Your task to perform on an android device: Show the shopping cart on target.com. Image 0: 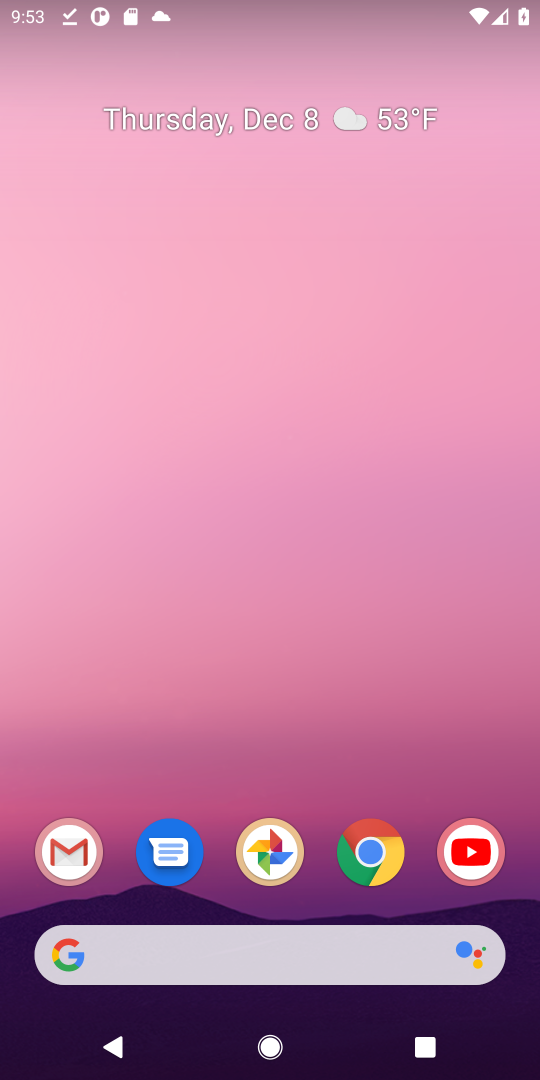
Step 0: click (165, 944)
Your task to perform on an android device: Show the shopping cart on target.com. Image 1: 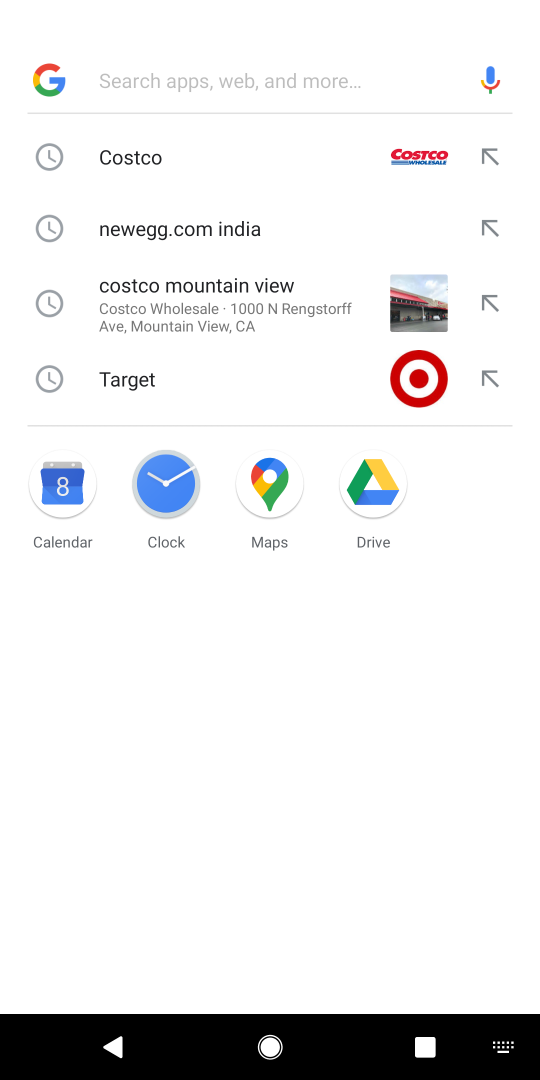
Step 1: type "target"
Your task to perform on an android device: Show the shopping cart on target.com. Image 2: 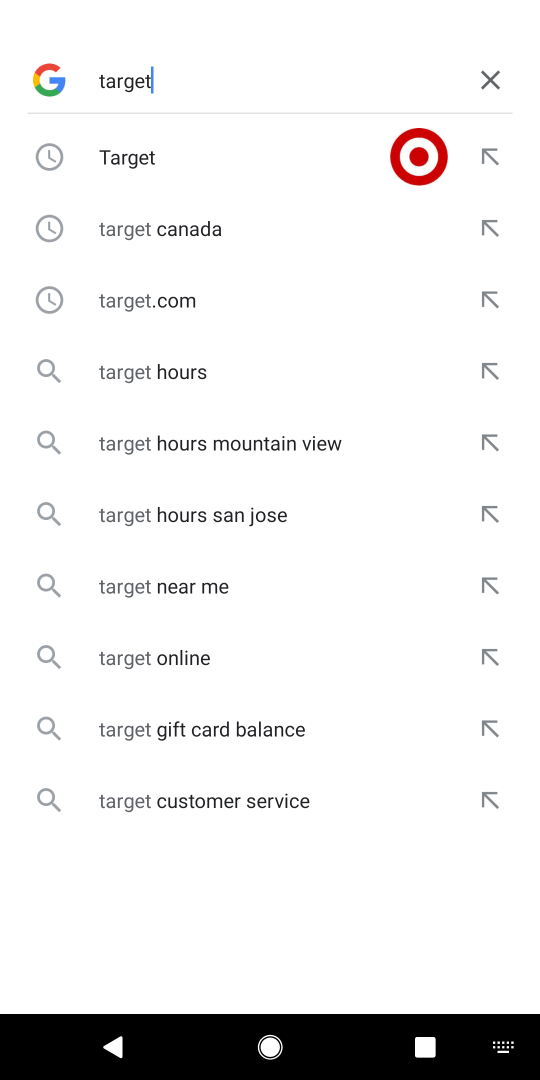
Step 2: click (162, 166)
Your task to perform on an android device: Show the shopping cart on target.com. Image 3: 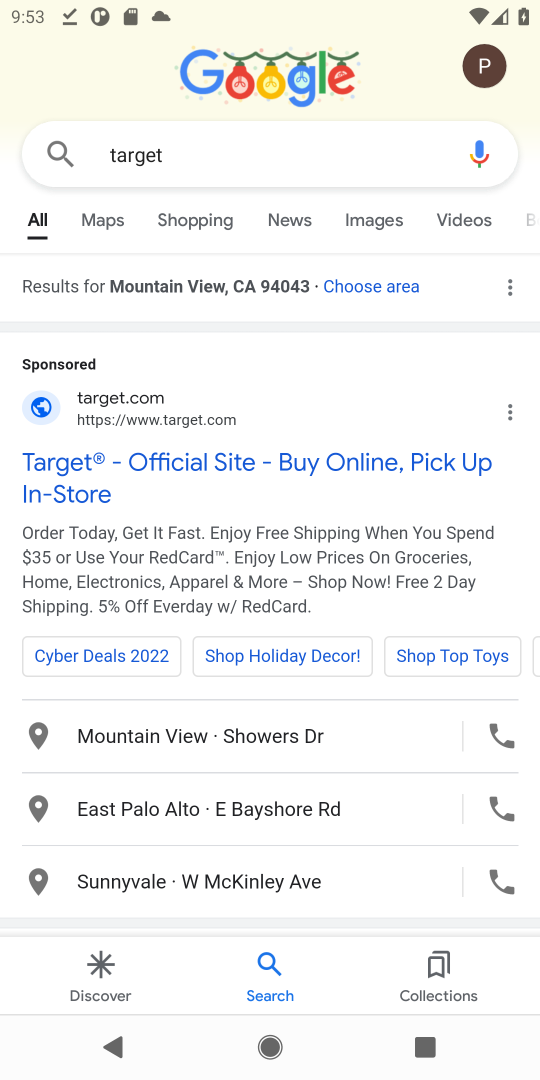
Step 3: click (122, 484)
Your task to perform on an android device: Show the shopping cart on target.com. Image 4: 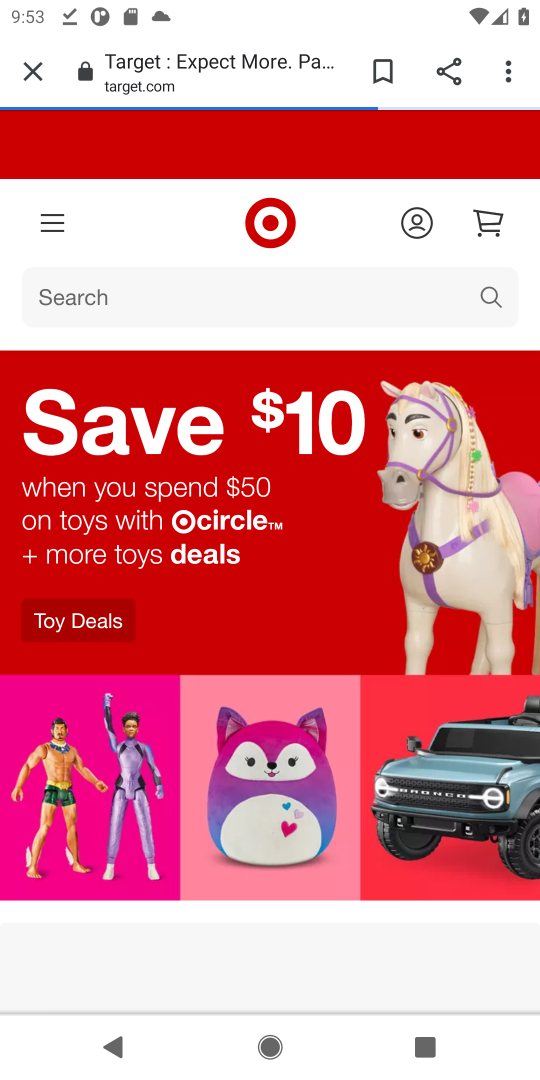
Step 4: click (137, 311)
Your task to perform on an android device: Show the shopping cart on target.com. Image 5: 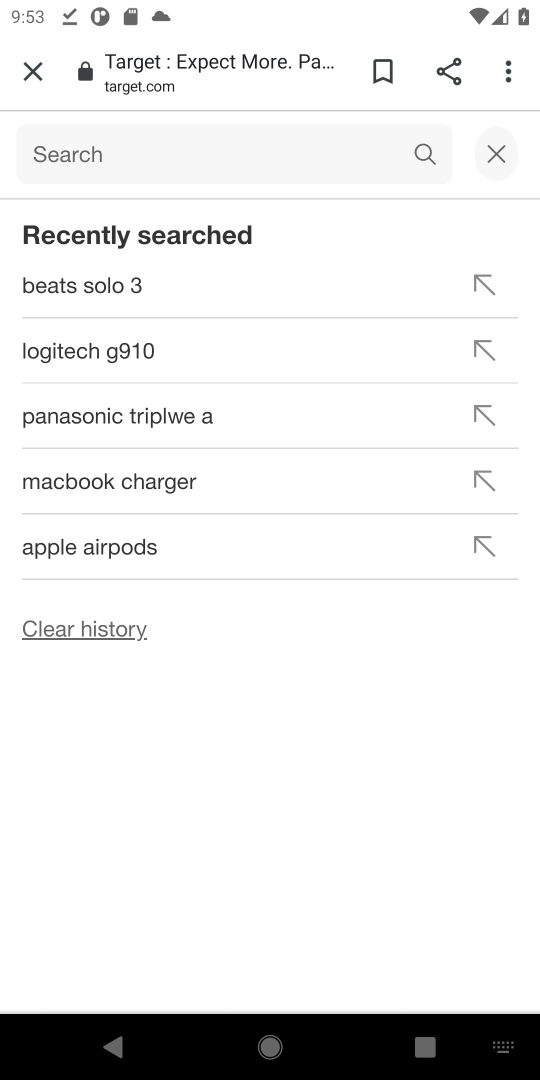
Step 5: type "target"
Your task to perform on an android device: Show the shopping cart on target.com. Image 6: 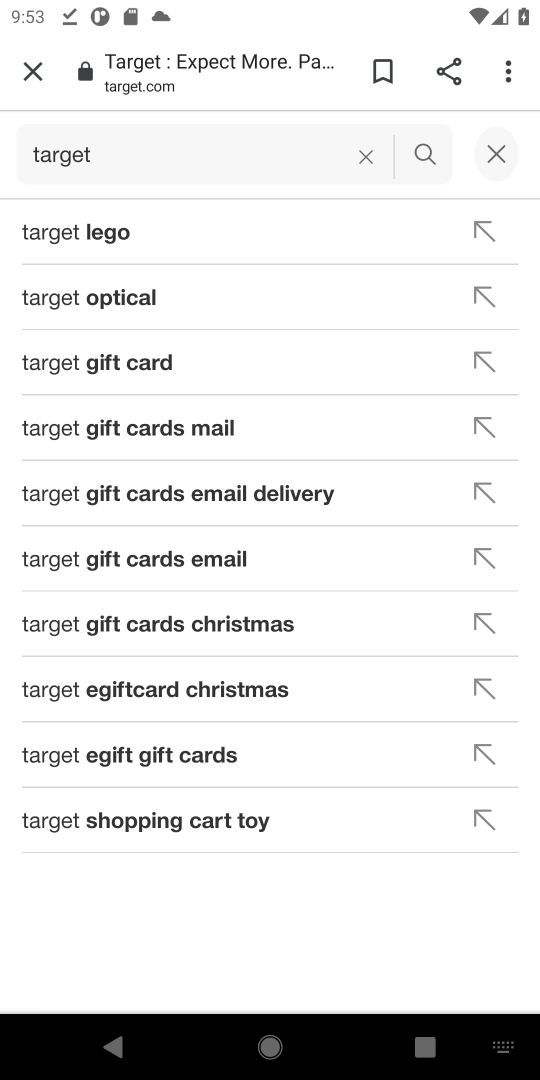
Step 6: click (496, 157)
Your task to perform on an android device: Show the shopping cart on target.com. Image 7: 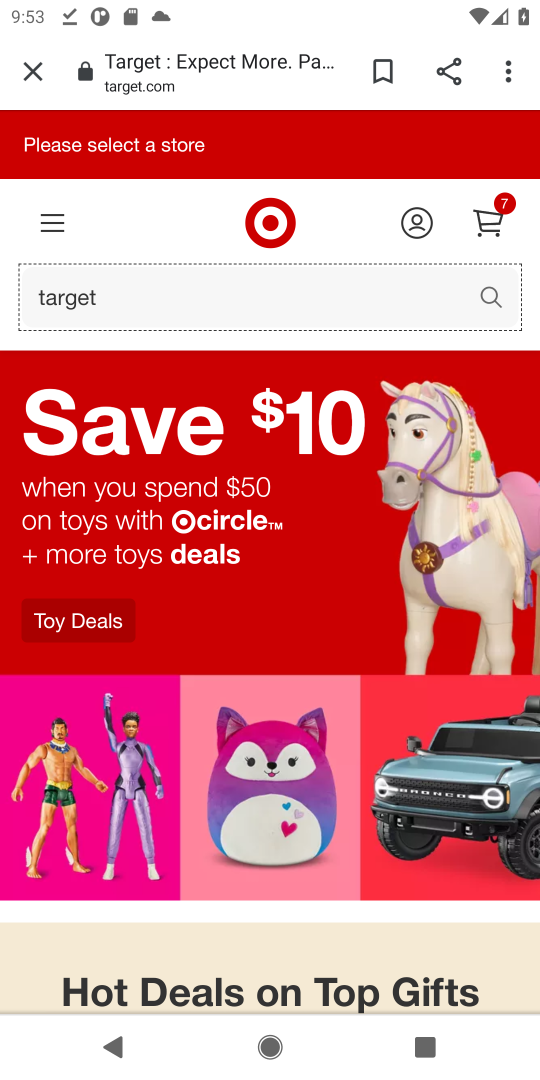
Step 7: click (487, 229)
Your task to perform on an android device: Show the shopping cart on target.com. Image 8: 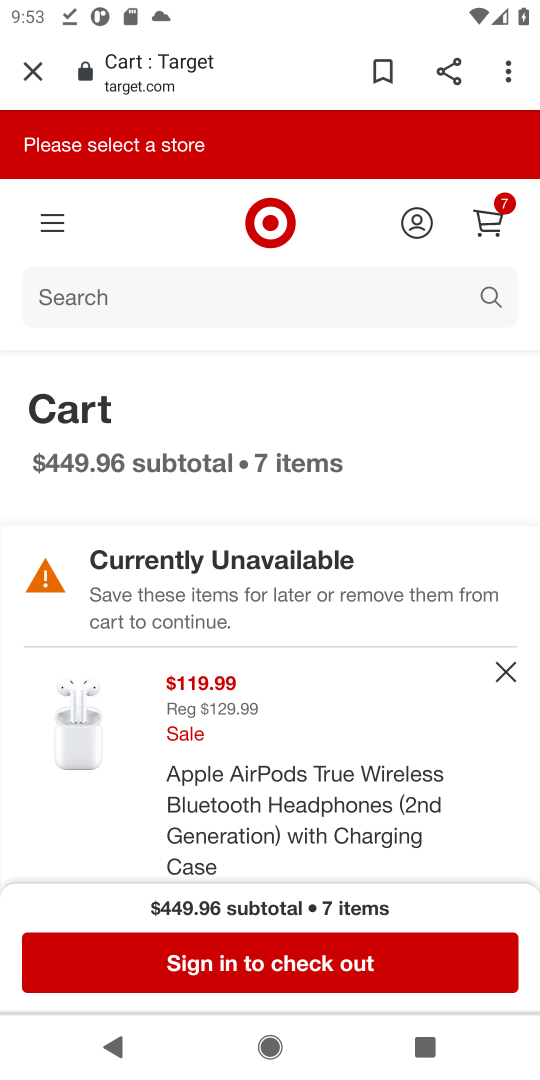
Step 8: click (504, 671)
Your task to perform on an android device: Show the shopping cart on target.com. Image 9: 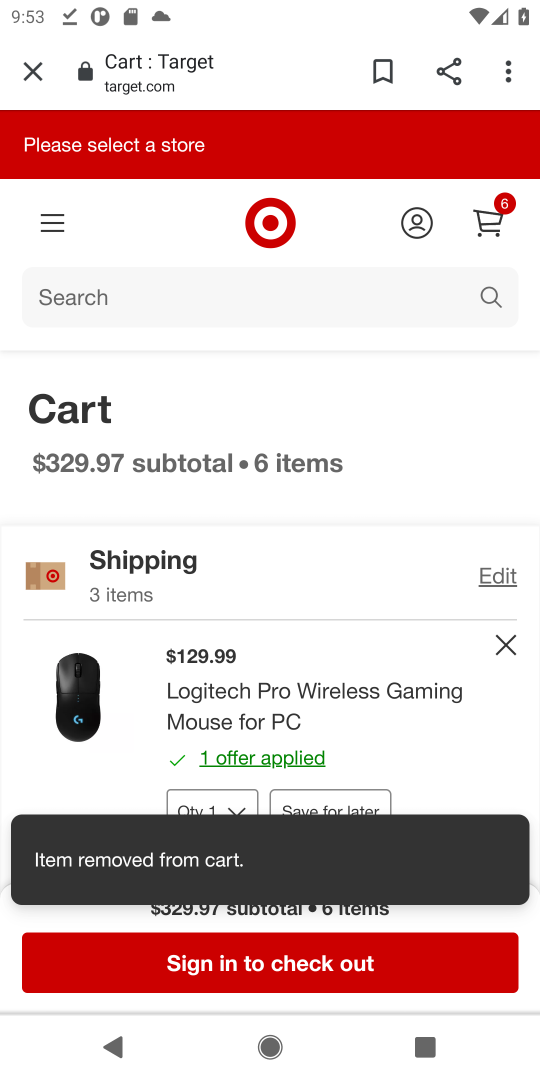
Step 9: drag from (409, 750) to (364, 386)
Your task to perform on an android device: Show the shopping cart on target.com. Image 10: 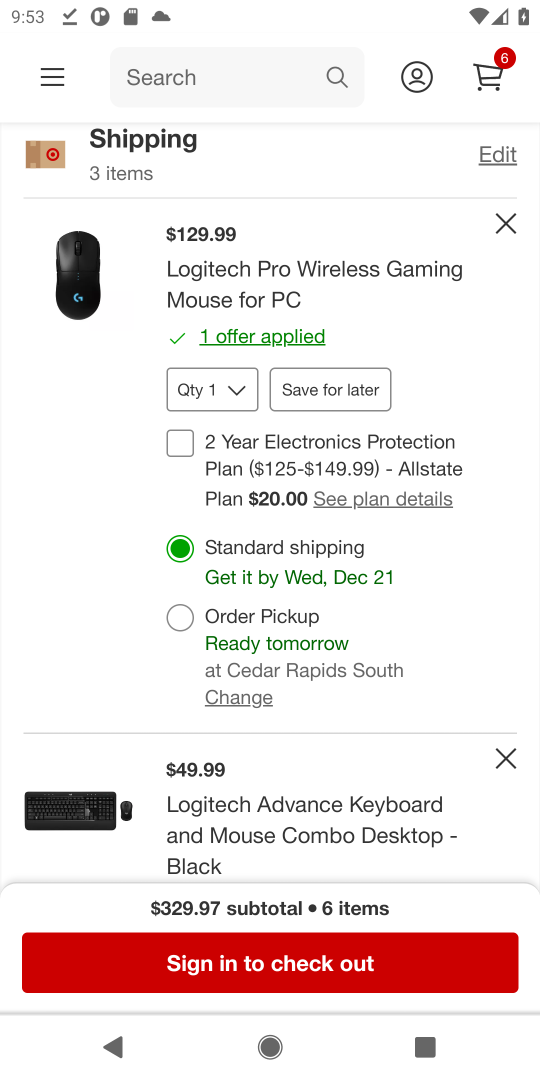
Step 10: click (512, 232)
Your task to perform on an android device: Show the shopping cart on target.com. Image 11: 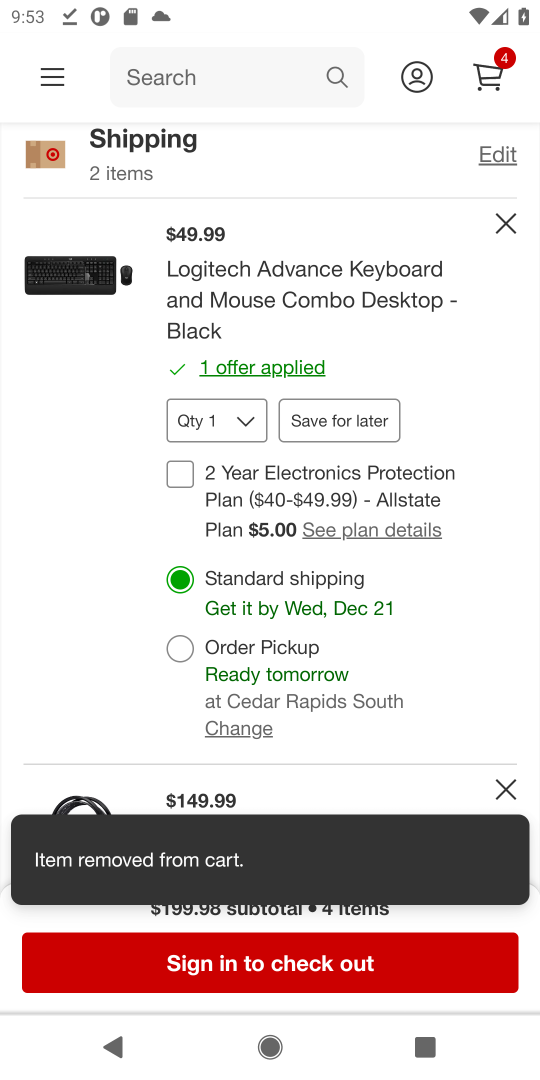
Step 11: click (509, 790)
Your task to perform on an android device: Show the shopping cart on target.com. Image 12: 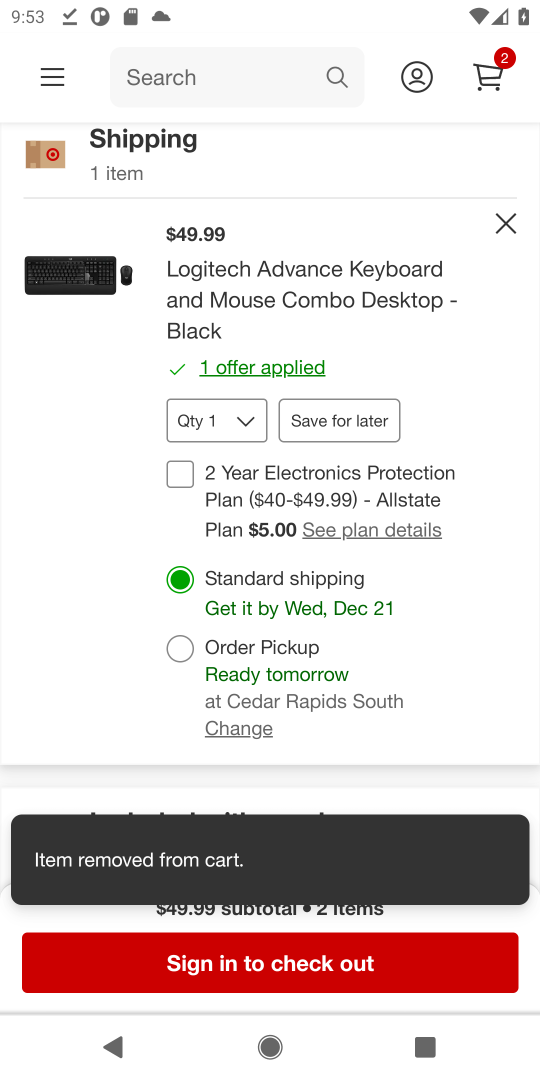
Step 12: click (505, 229)
Your task to perform on an android device: Show the shopping cart on target.com. Image 13: 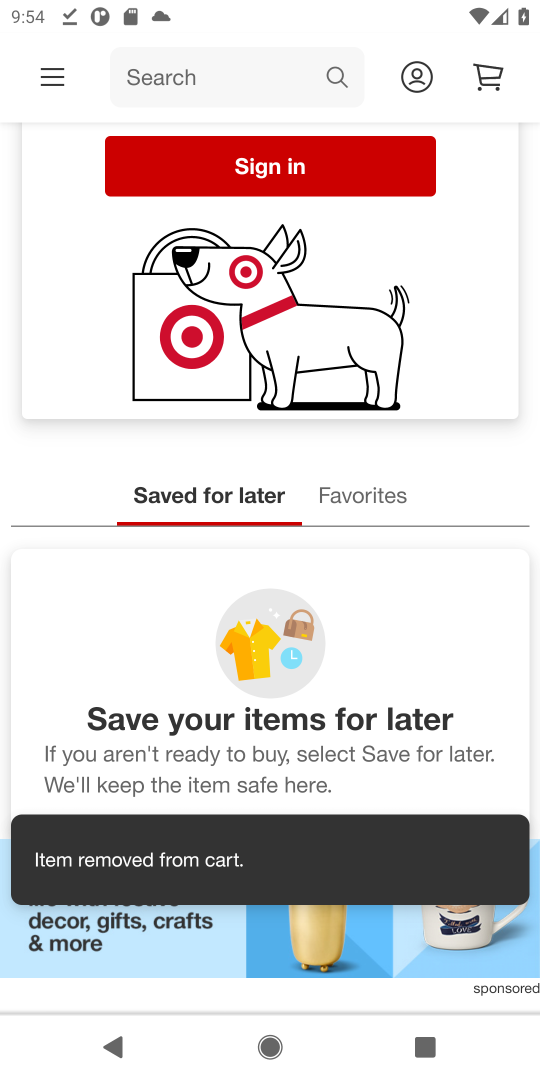
Step 13: task complete